Your task to perform on an android device: Go to notification settings Image 0: 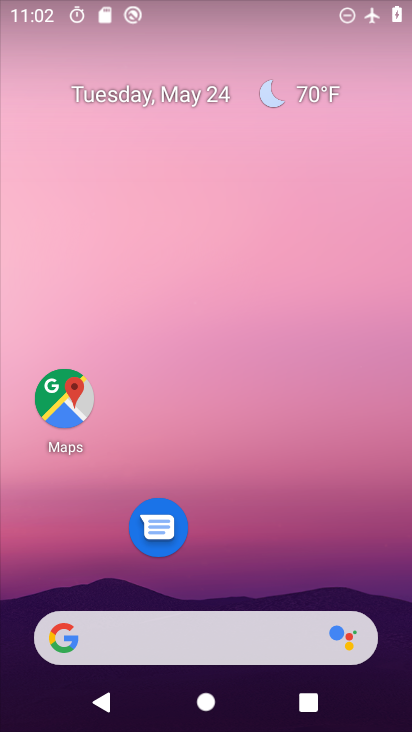
Step 0: drag from (259, 564) to (305, 39)
Your task to perform on an android device: Go to notification settings Image 1: 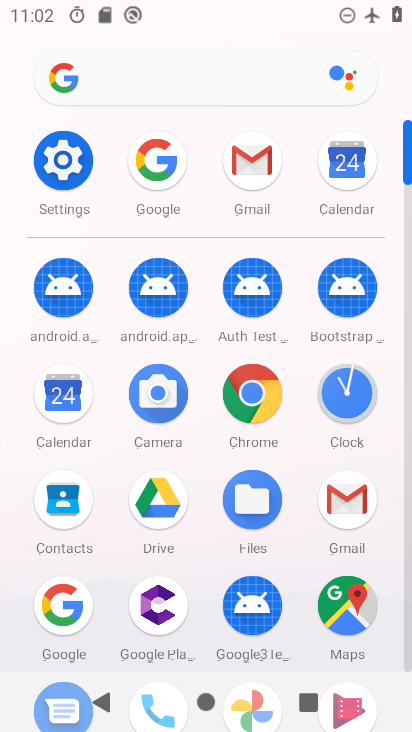
Step 1: click (64, 158)
Your task to perform on an android device: Go to notification settings Image 2: 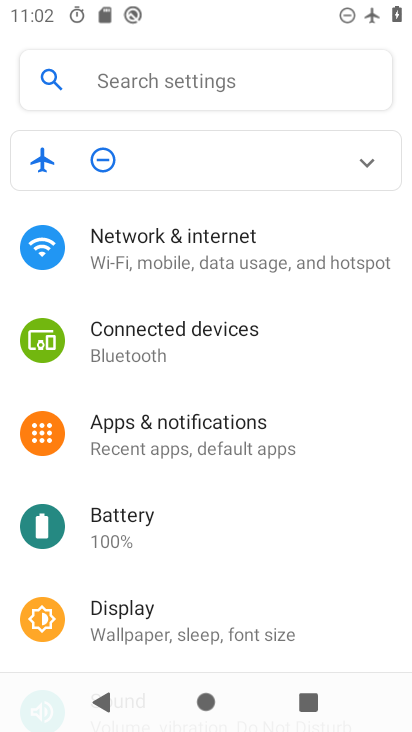
Step 2: click (124, 443)
Your task to perform on an android device: Go to notification settings Image 3: 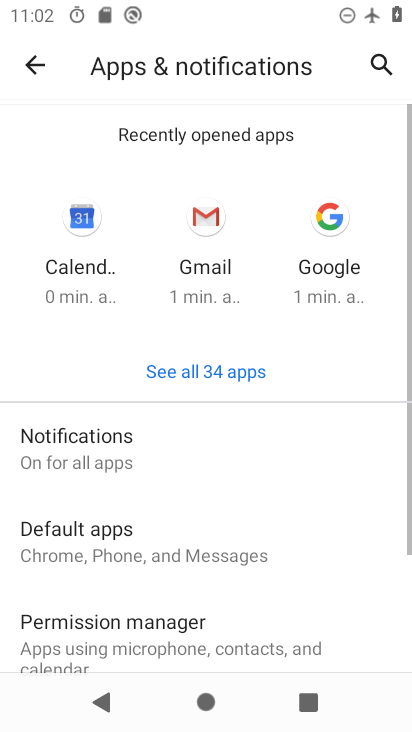
Step 3: click (156, 448)
Your task to perform on an android device: Go to notification settings Image 4: 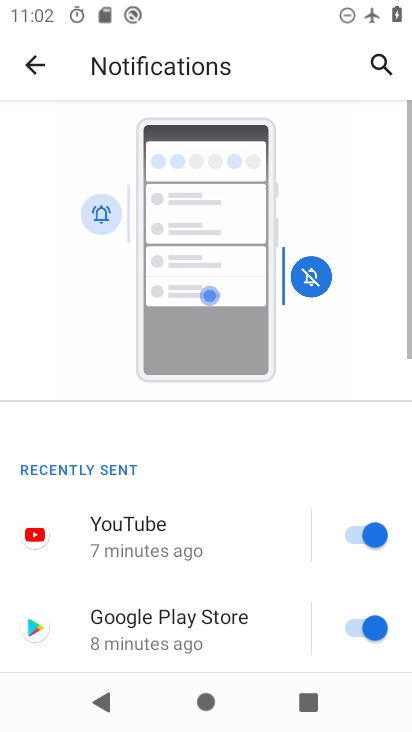
Step 4: task complete